Your task to perform on an android device: check storage Image 0: 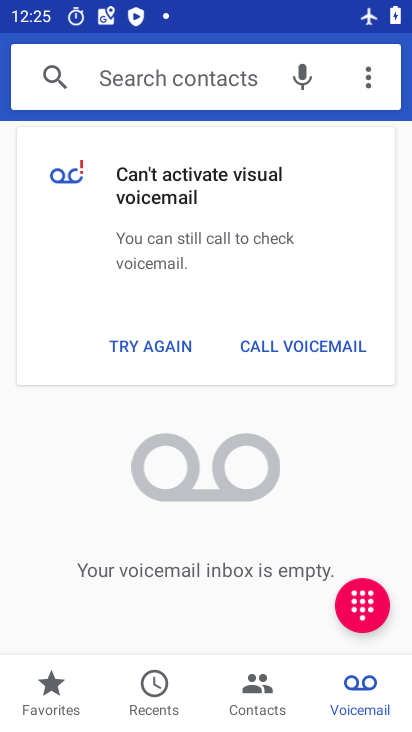
Step 0: press home button
Your task to perform on an android device: check storage Image 1: 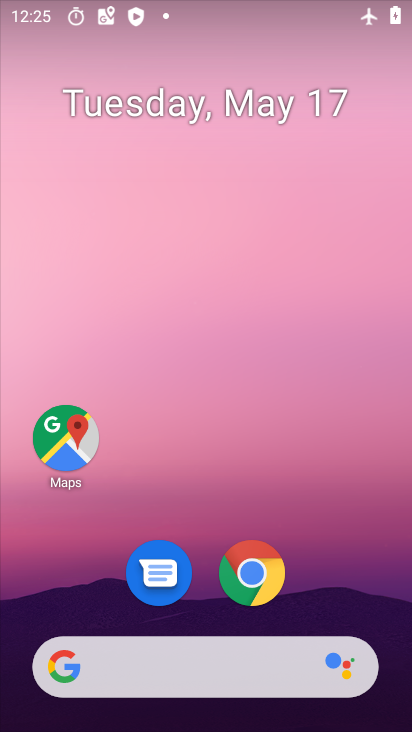
Step 1: drag from (235, 714) to (179, 0)
Your task to perform on an android device: check storage Image 2: 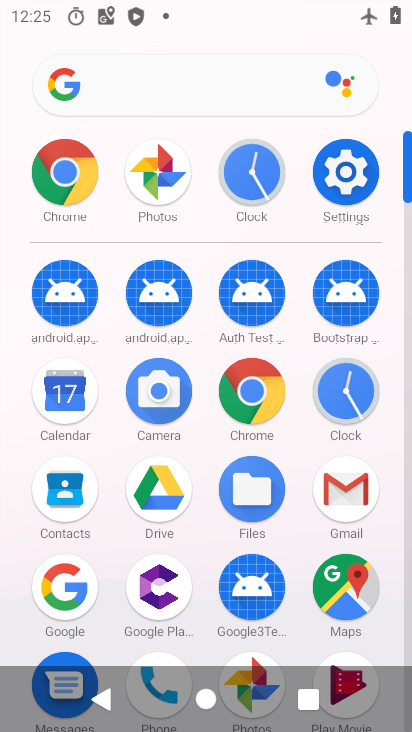
Step 2: click (353, 174)
Your task to perform on an android device: check storage Image 3: 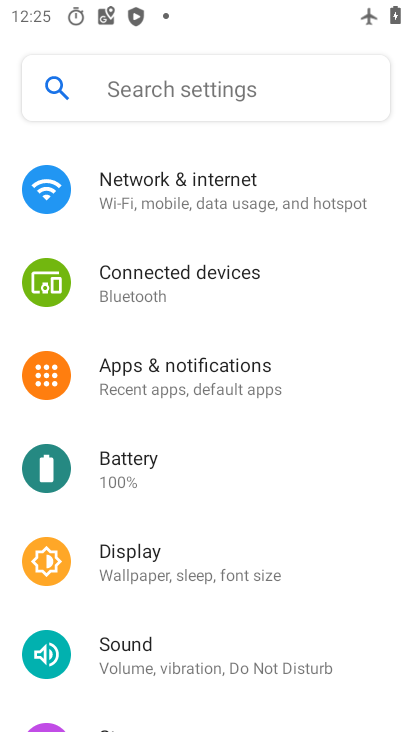
Step 3: drag from (281, 620) to (203, 85)
Your task to perform on an android device: check storage Image 4: 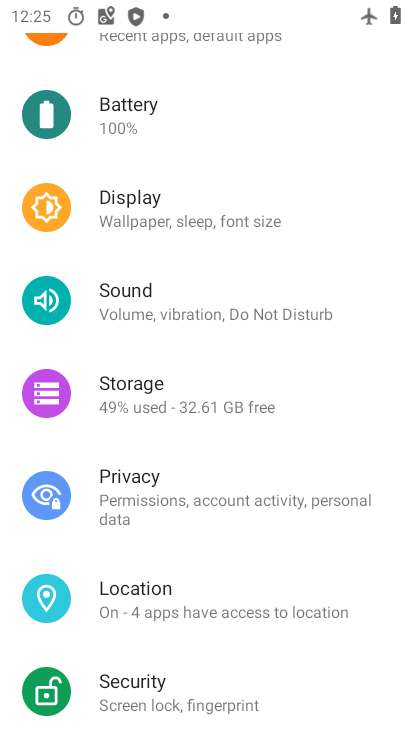
Step 4: click (239, 396)
Your task to perform on an android device: check storage Image 5: 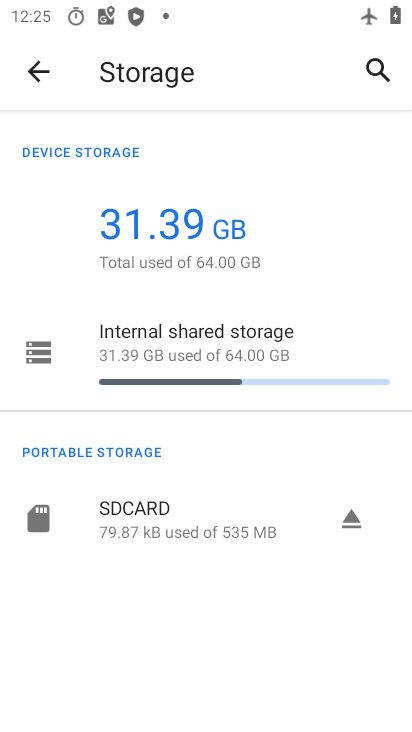
Step 5: task complete